Your task to perform on an android device: check data usage Image 0: 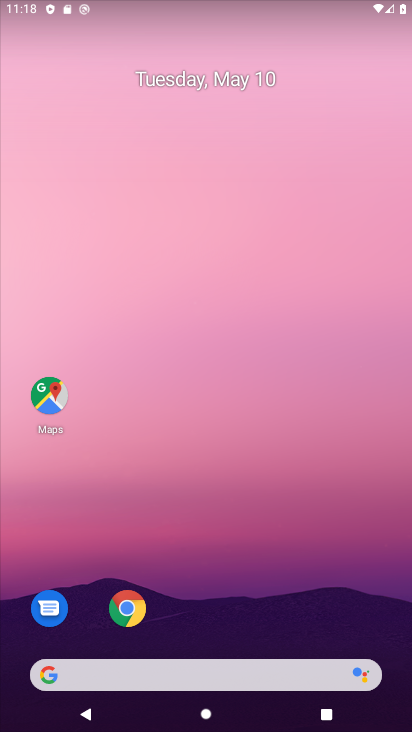
Step 0: drag from (241, 590) to (172, 83)
Your task to perform on an android device: check data usage Image 1: 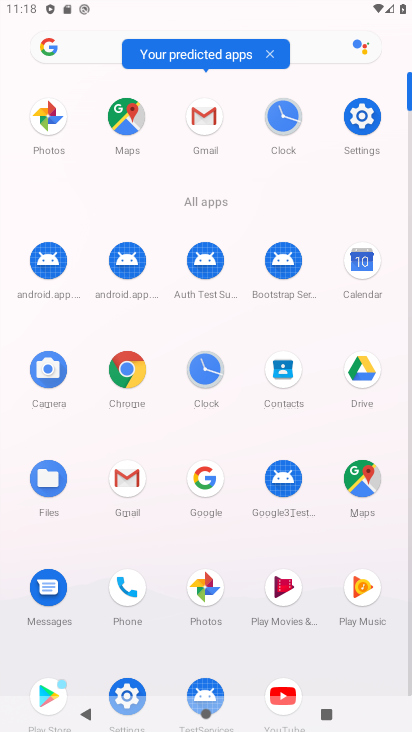
Step 1: click (351, 135)
Your task to perform on an android device: check data usage Image 2: 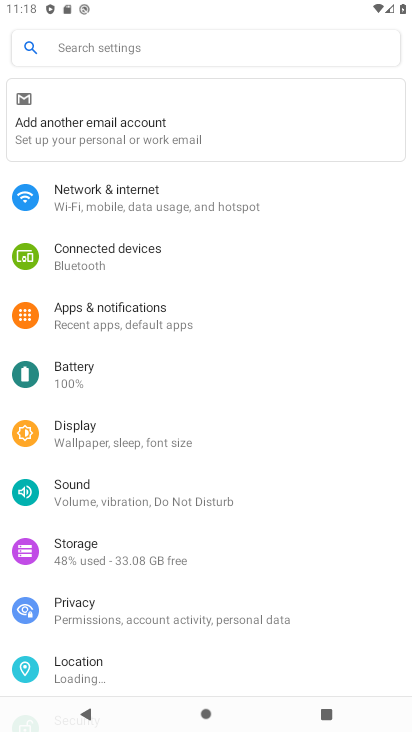
Step 2: click (171, 205)
Your task to perform on an android device: check data usage Image 3: 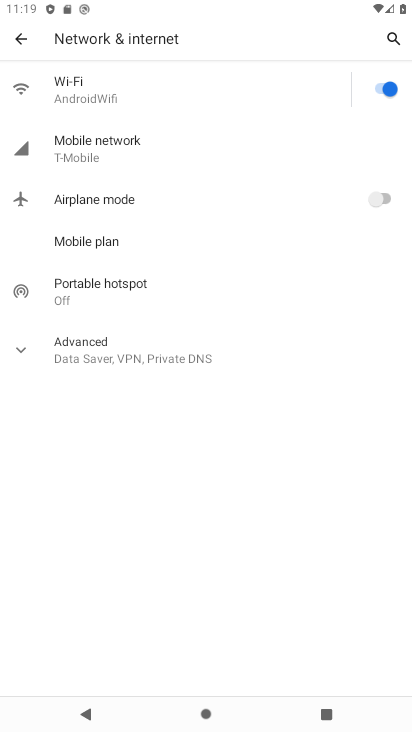
Step 3: click (81, 243)
Your task to perform on an android device: check data usage Image 4: 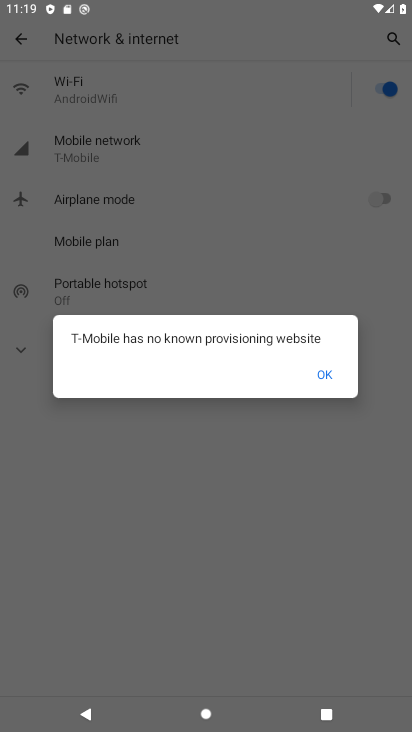
Step 4: click (89, 238)
Your task to perform on an android device: check data usage Image 5: 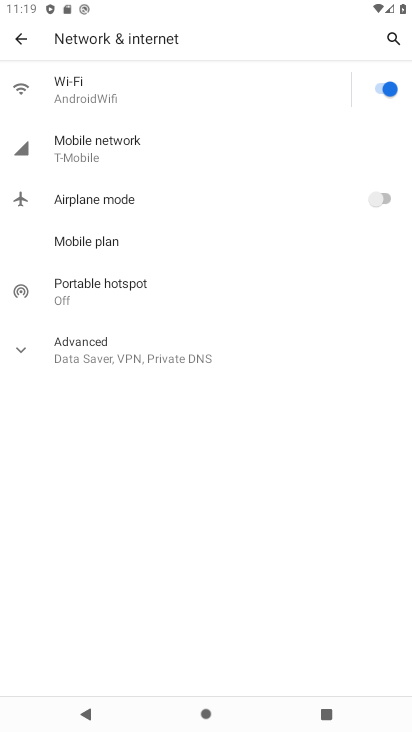
Step 5: click (104, 152)
Your task to perform on an android device: check data usage Image 6: 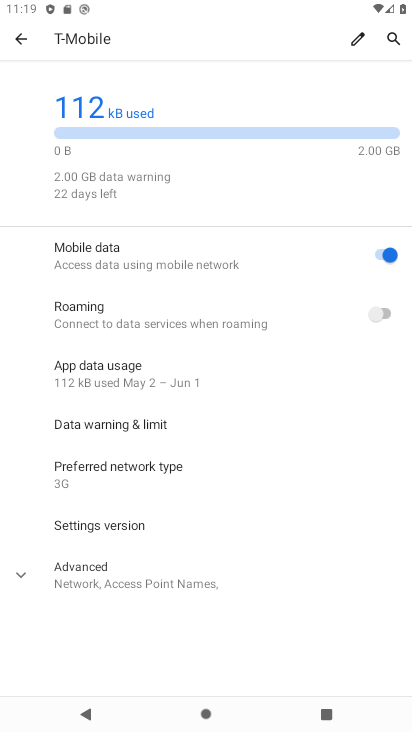
Step 6: task complete